Your task to perform on an android device: How do I get to the nearest Walmart? Image 0: 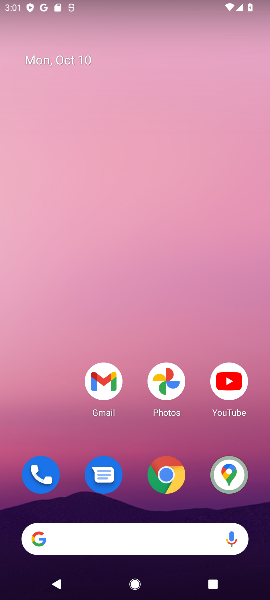
Step 0: drag from (130, 464) to (145, 11)
Your task to perform on an android device: How do I get to the nearest Walmart? Image 1: 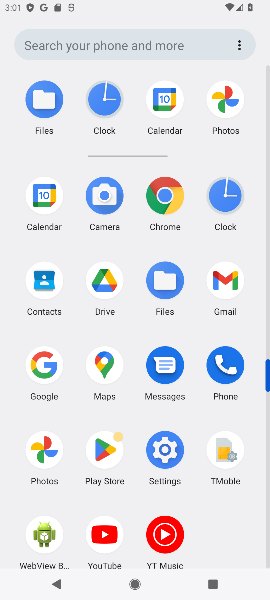
Step 1: click (50, 377)
Your task to perform on an android device: How do I get to the nearest Walmart? Image 2: 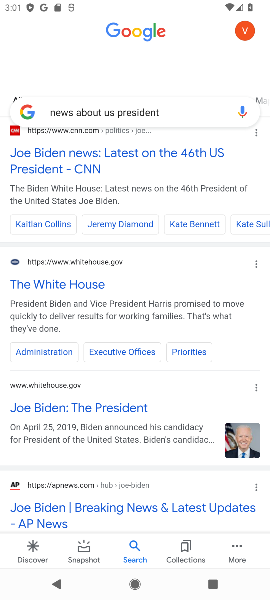
Step 2: press home button
Your task to perform on an android device: How do I get to the nearest Walmart? Image 3: 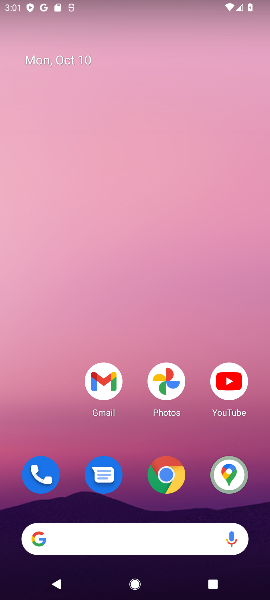
Step 3: drag from (129, 455) to (132, 157)
Your task to perform on an android device: How do I get to the nearest Walmart? Image 4: 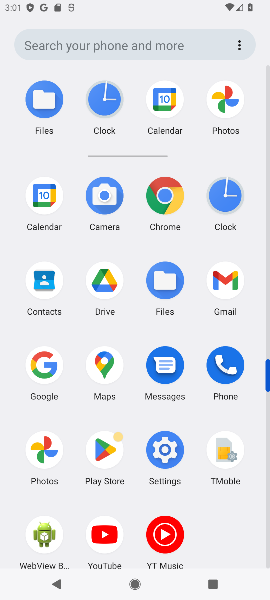
Step 4: click (106, 371)
Your task to perform on an android device: How do I get to the nearest Walmart? Image 5: 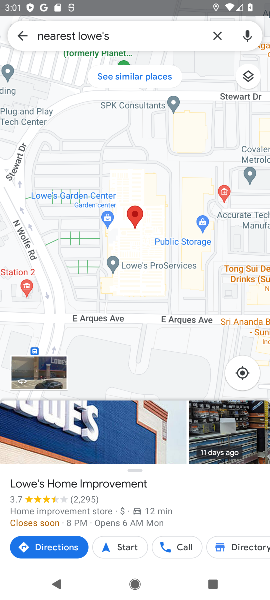
Step 5: click (213, 35)
Your task to perform on an android device: How do I get to the nearest Walmart? Image 6: 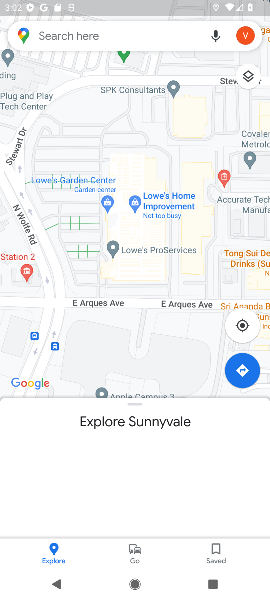
Step 6: click (178, 38)
Your task to perform on an android device: How do I get to the nearest Walmart? Image 7: 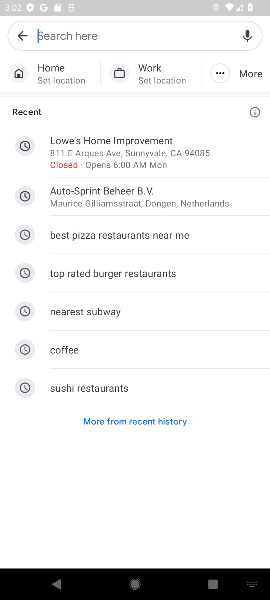
Step 7: type "Walmart"
Your task to perform on an android device: How do I get to the nearest Walmart? Image 8: 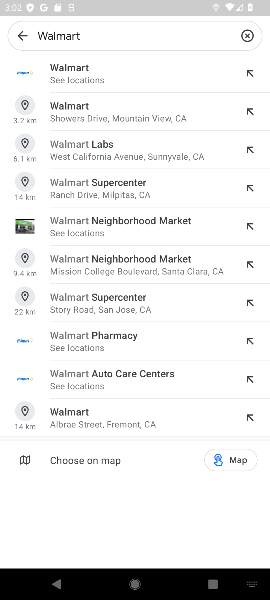
Step 8: click (250, 119)
Your task to perform on an android device: How do I get to the nearest Walmart? Image 9: 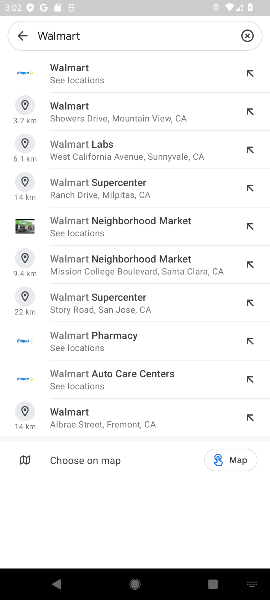
Step 9: click (208, 118)
Your task to perform on an android device: How do I get to the nearest Walmart? Image 10: 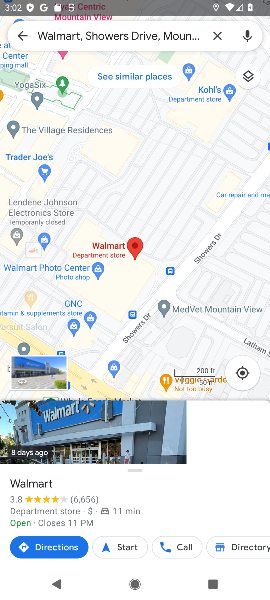
Step 10: click (65, 554)
Your task to perform on an android device: How do I get to the nearest Walmart? Image 11: 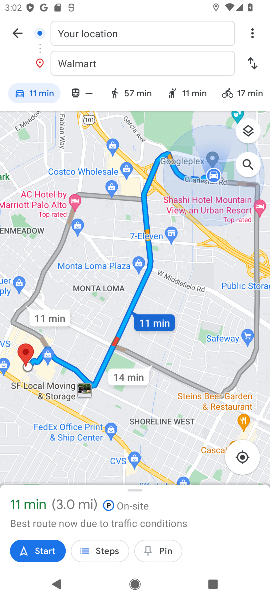
Step 11: task complete